Your task to perform on an android device: toggle airplane mode Image 0: 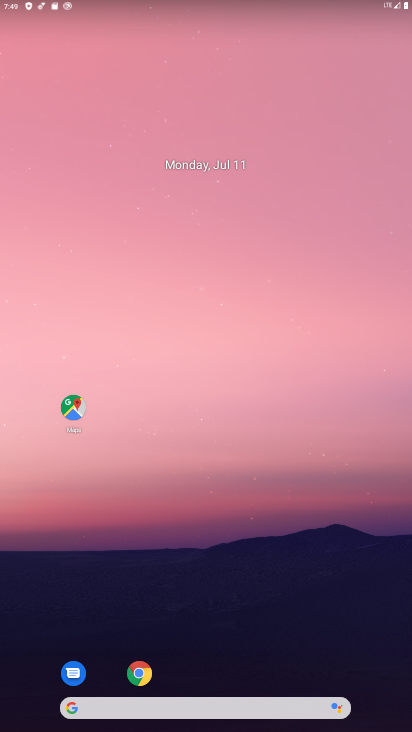
Step 0: drag from (352, 619) to (273, 235)
Your task to perform on an android device: toggle airplane mode Image 1: 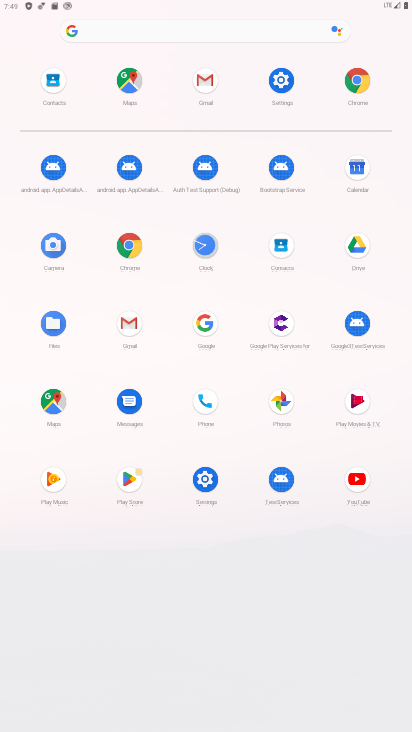
Step 1: click (282, 77)
Your task to perform on an android device: toggle airplane mode Image 2: 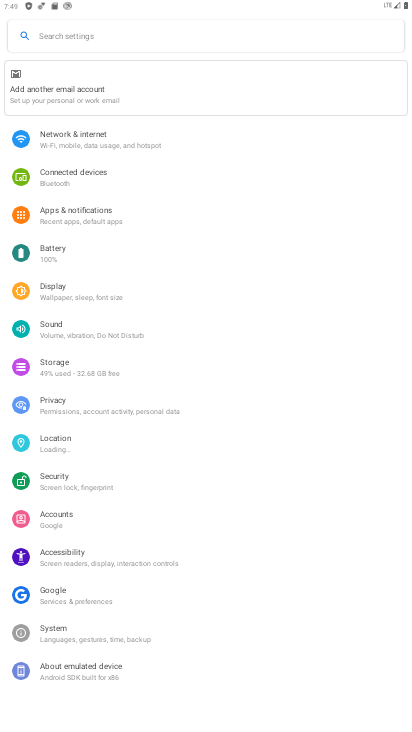
Step 2: click (56, 144)
Your task to perform on an android device: toggle airplane mode Image 3: 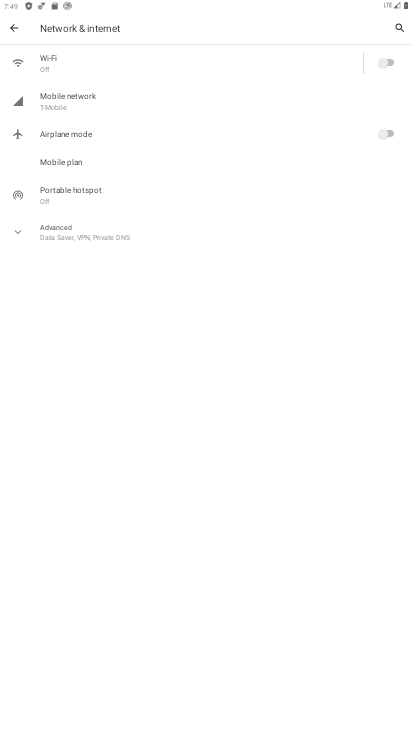
Step 3: click (374, 150)
Your task to perform on an android device: toggle airplane mode Image 4: 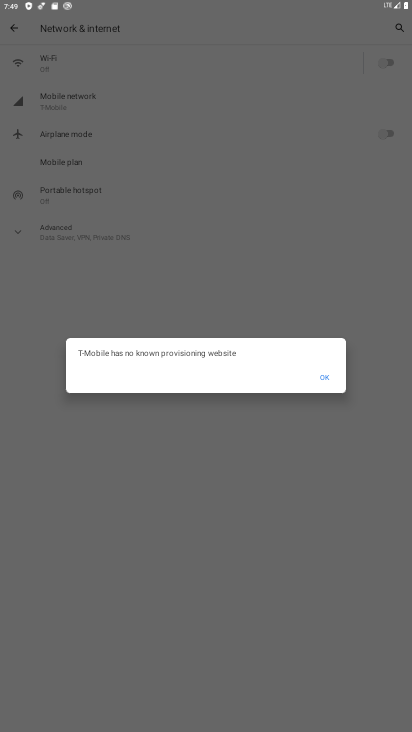
Step 4: click (326, 370)
Your task to perform on an android device: toggle airplane mode Image 5: 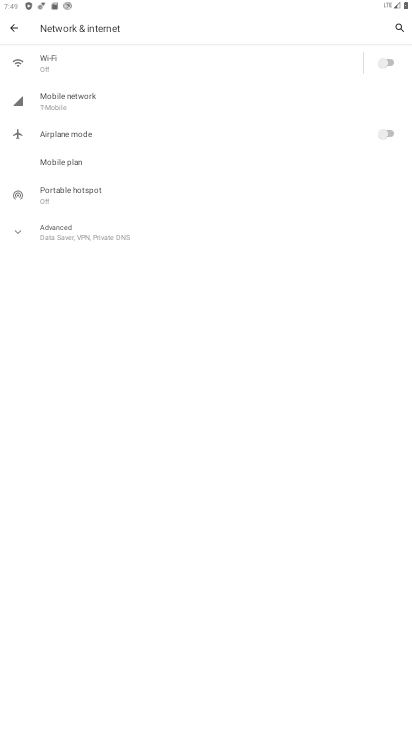
Step 5: click (386, 130)
Your task to perform on an android device: toggle airplane mode Image 6: 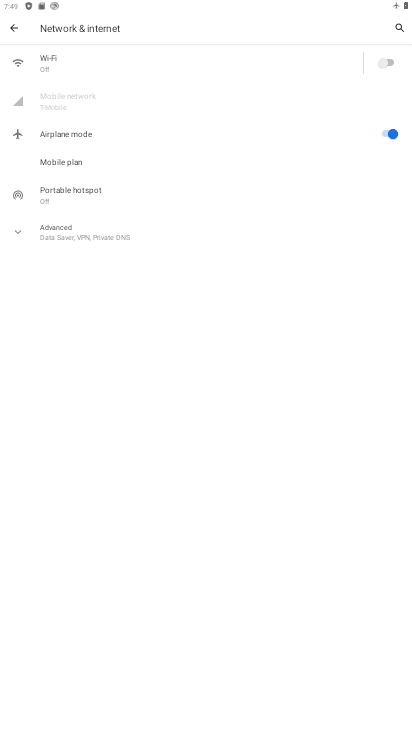
Step 6: task complete